Your task to perform on an android device: Do I have any events tomorrow? Image 0: 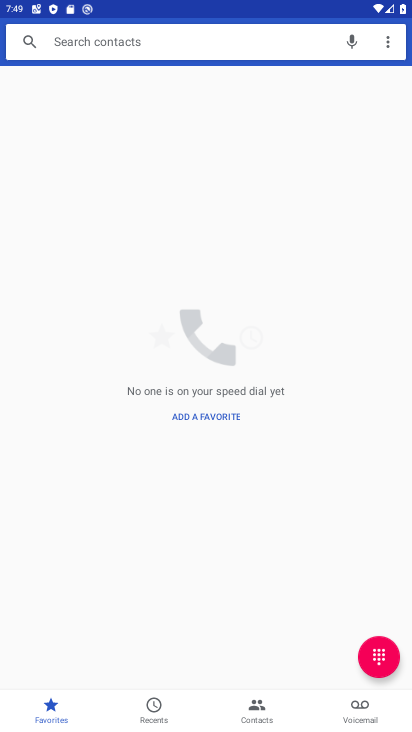
Step 0: press home button
Your task to perform on an android device: Do I have any events tomorrow? Image 1: 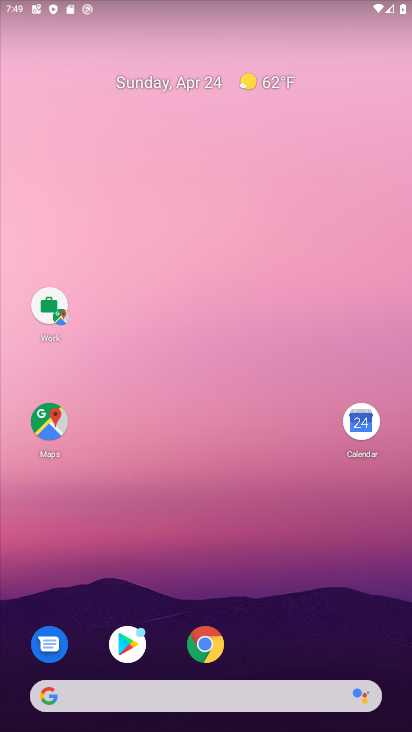
Step 1: drag from (345, 618) to (204, 0)
Your task to perform on an android device: Do I have any events tomorrow? Image 2: 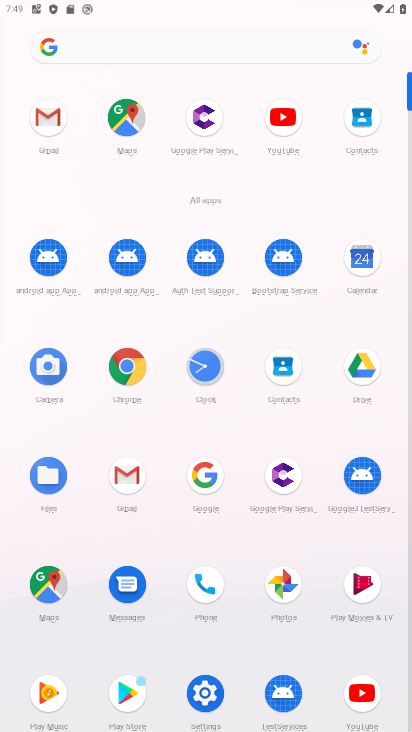
Step 2: click (367, 259)
Your task to perform on an android device: Do I have any events tomorrow? Image 3: 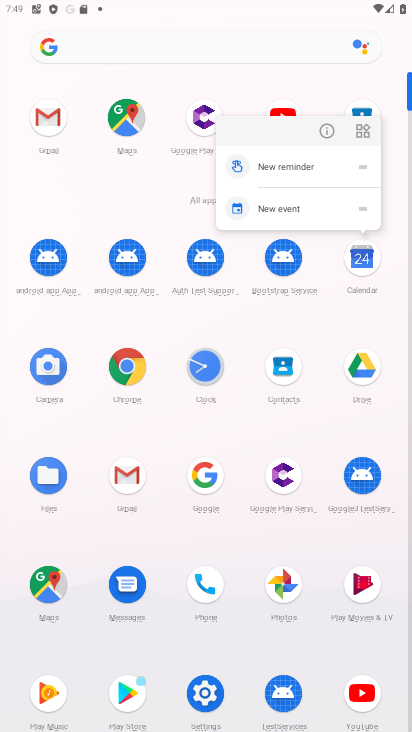
Step 3: click (368, 257)
Your task to perform on an android device: Do I have any events tomorrow? Image 4: 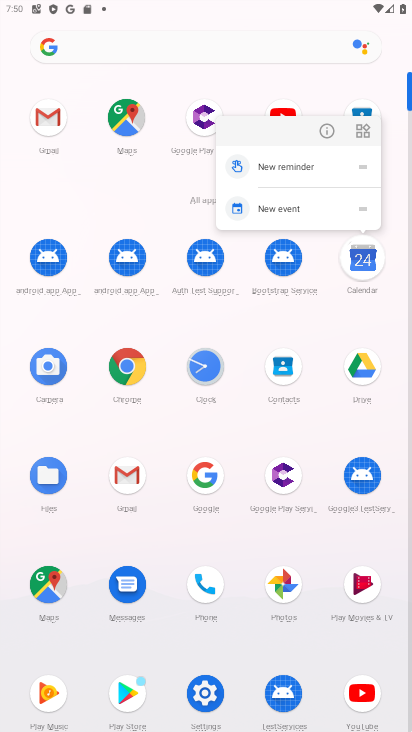
Step 4: click (368, 257)
Your task to perform on an android device: Do I have any events tomorrow? Image 5: 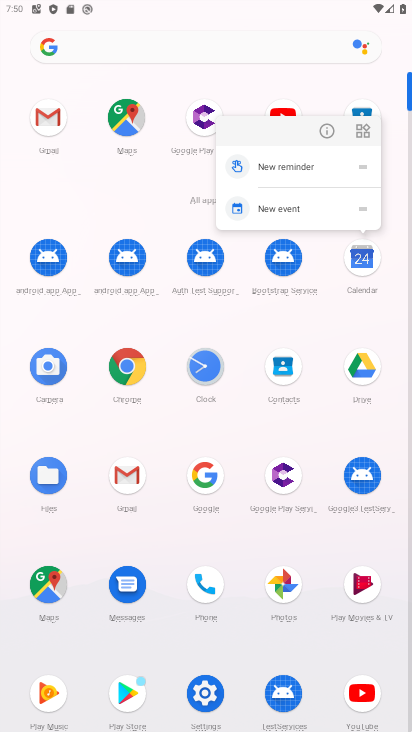
Step 5: click (356, 262)
Your task to perform on an android device: Do I have any events tomorrow? Image 6: 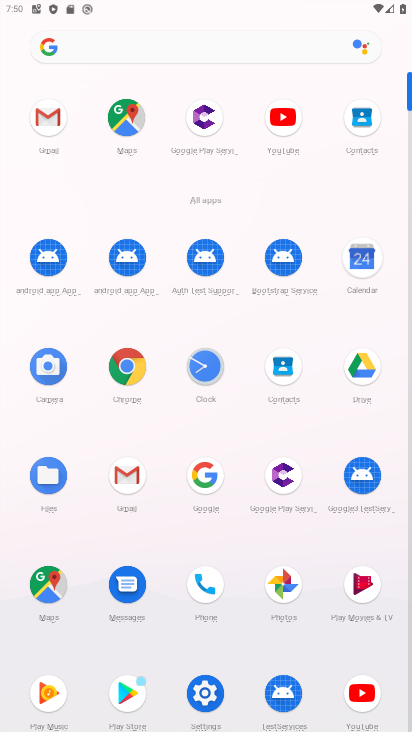
Step 6: click (353, 258)
Your task to perform on an android device: Do I have any events tomorrow? Image 7: 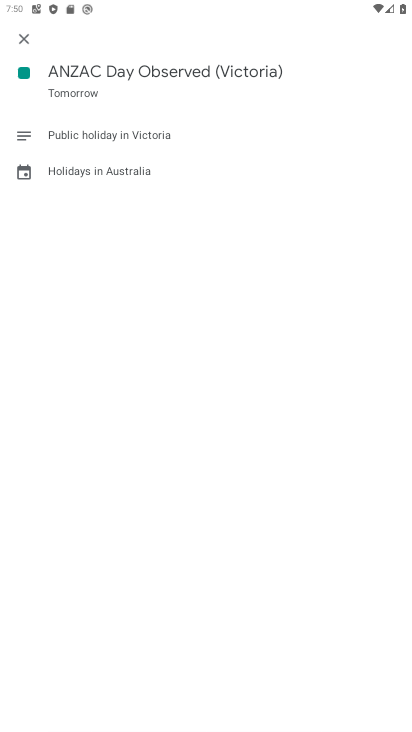
Step 7: click (31, 43)
Your task to perform on an android device: Do I have any events tomorrow? Image 8: 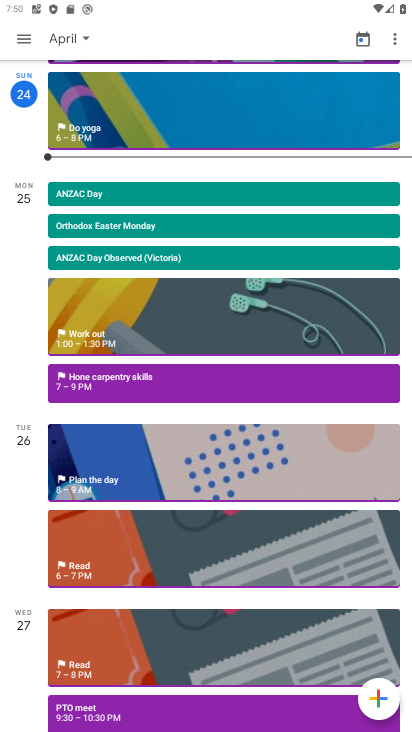
Step 8: click (28, 54)
Your task to perform on an android device: Do I have any events tomorrow? Image 9: 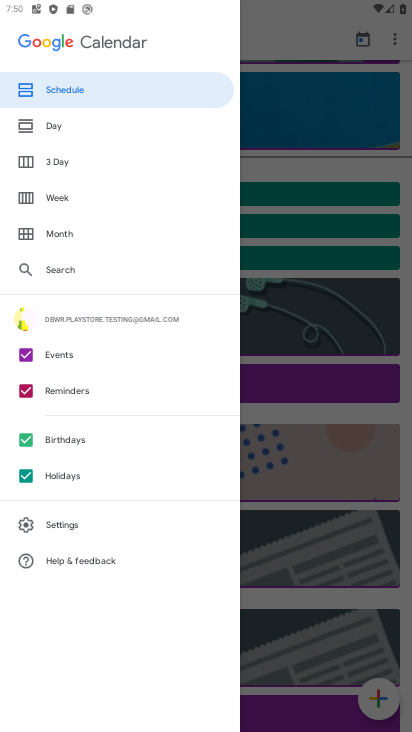
Step 9: click (90, 95)
Your task to perform on an android device: Do I have any events tomorrow? Image 10: 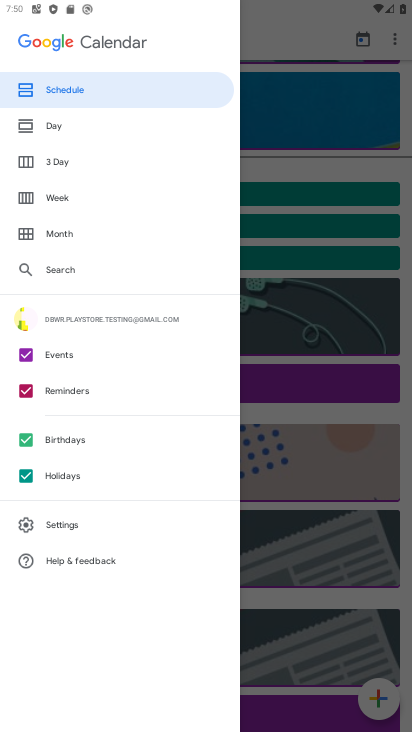
Step 10: click (121, 91)
Your task to perform on an android device: Do I have any events tomorrow? Image 11: 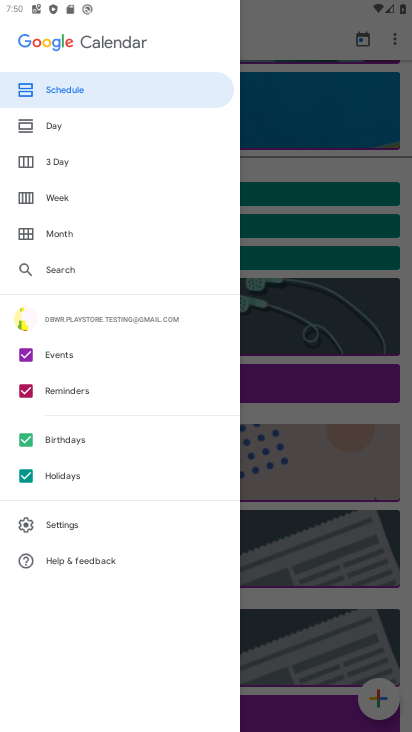
Step 11: click (265, 106)
Your task to perform on an android device: Do I have any events tomorrow? Image 12: 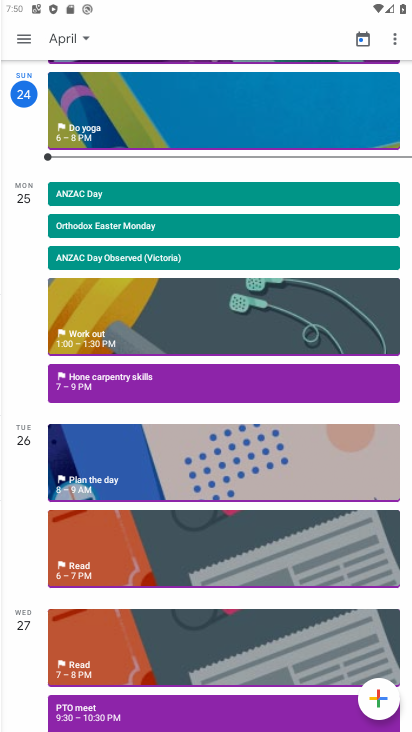
Step 12: click (265, 106)
Your task to perform on an android device: Do I have any events tomorrow? Image 13: 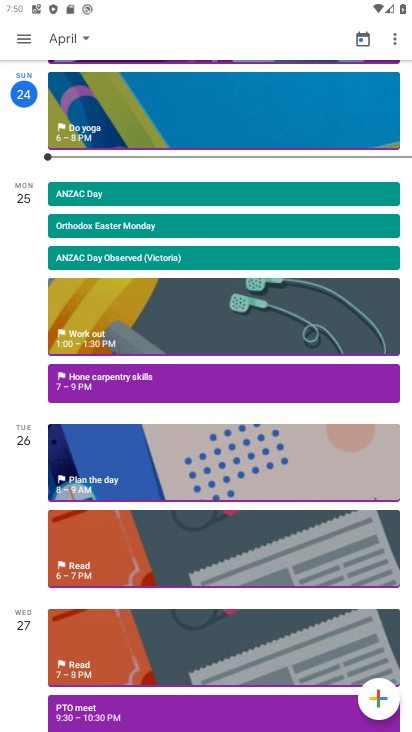
Step 13: click (127, 554)
Your task to perform on an android device: Do I have any events tomorrow? Image 14: 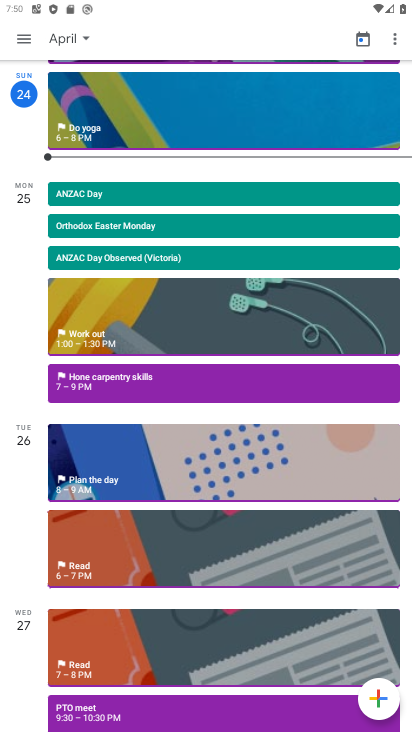
Step 14: click (129, 551)
Your task to perform on an android device: Do I have any events tomorrow? Image 15: 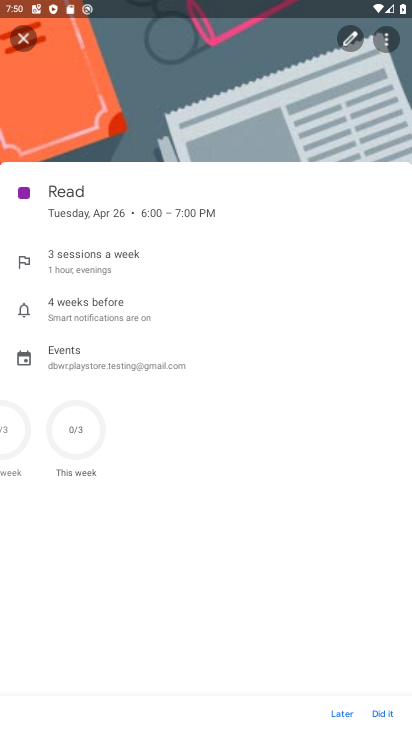
Step 15: click (13, 45)
Your task to perform on an android device: Do I have any events tomorrow? Image 16: 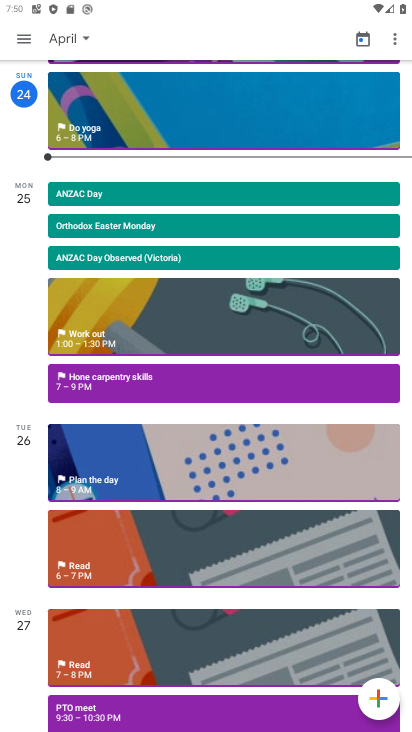
Step 16: task complete